Your task to perform on an android device: create a new album in the google photos Image 0: 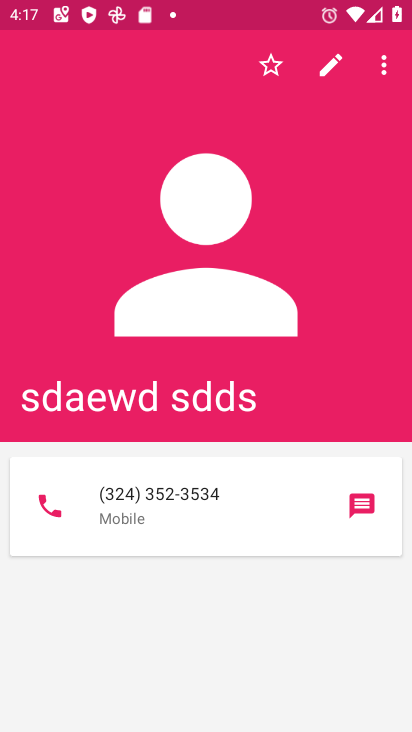
Step 0: press home button
Your task to perform on an android device: create a new album in the google photos Image 1: 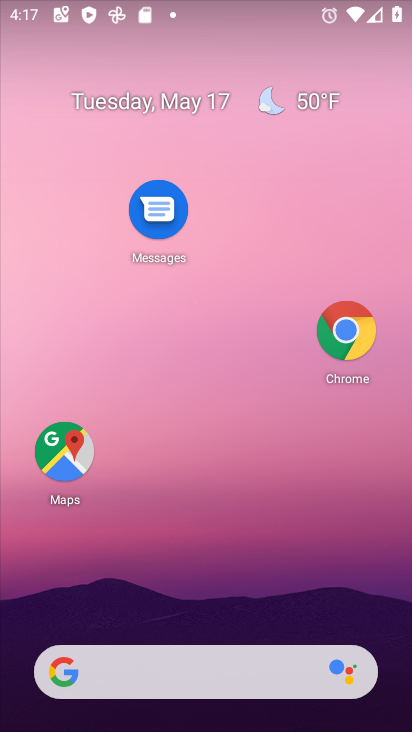
Step 1: drag from (272, 541) to (293, 117)
Your task to perform on an android device: create a new album in the google photos Image 2: 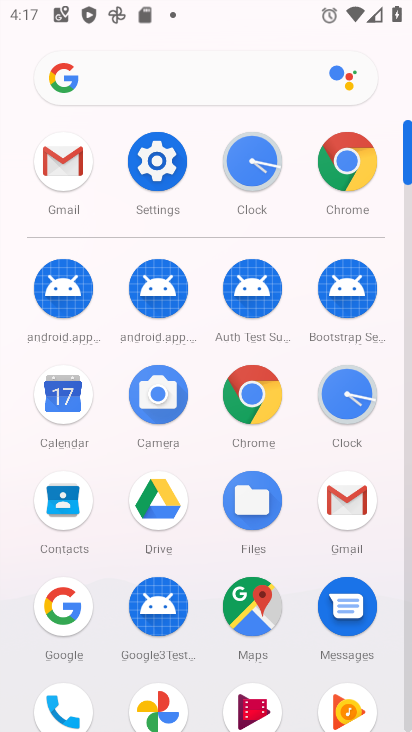
Step 2: click (146, 715)
Your task to perform on an android device: create a new album in the google photos Image 3: 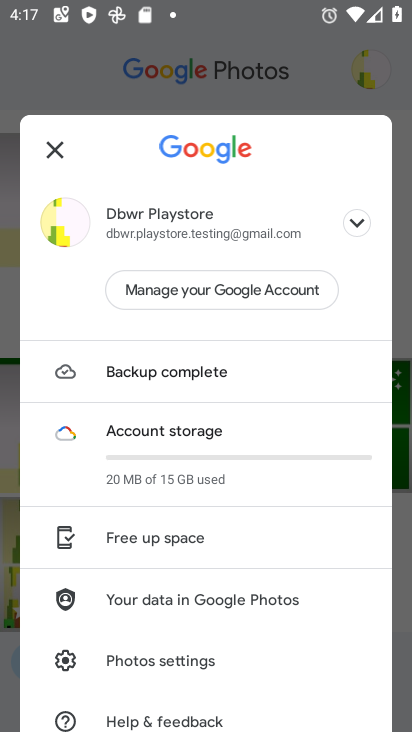
Step 3: drag from (146, 715) to (144, 585)
Your task to perform on an android device: create a new album in the google photos Image 4: 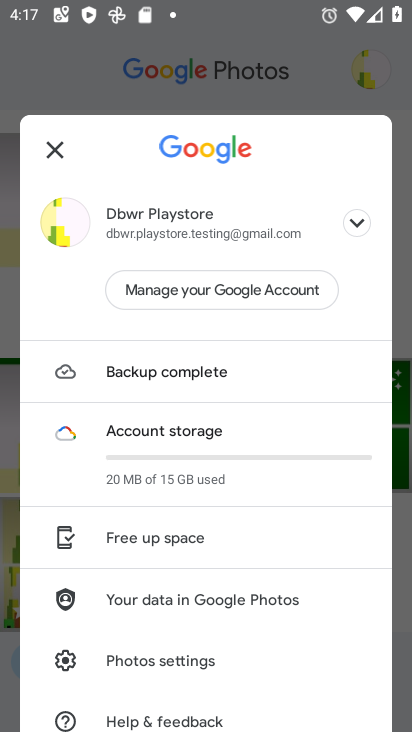
Step 4: click (45, 138)
Your task to perform on an android device: create a new album in the google photos Image 5: 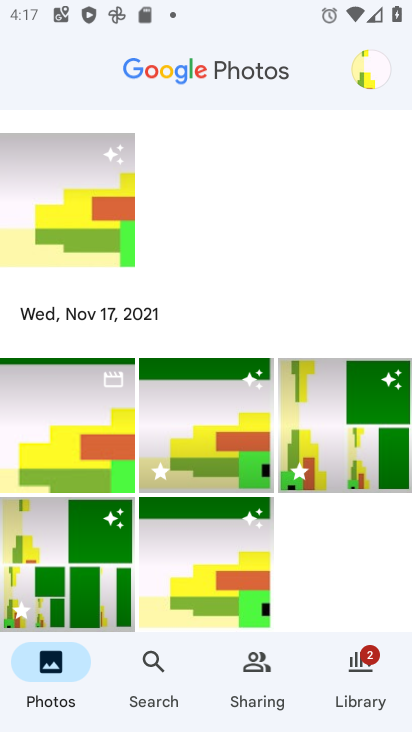
Step 5: click (319, 694)
Your task to perform on an android device: create a new album in the google photos Image 6: 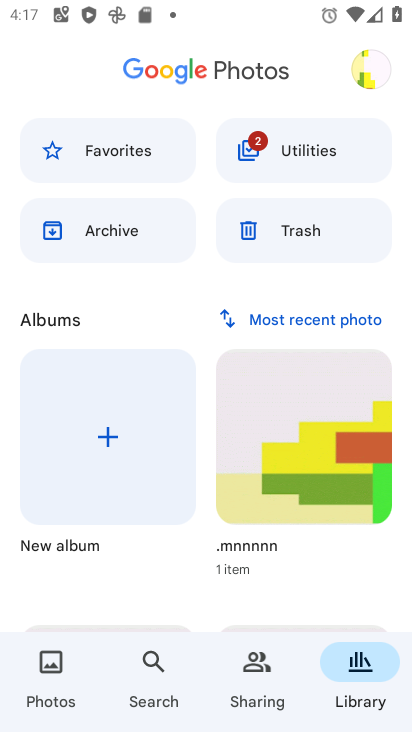
Step 6: click (107, 488)
Your task to perform on an android device: create a new album in the google photos Image 7: 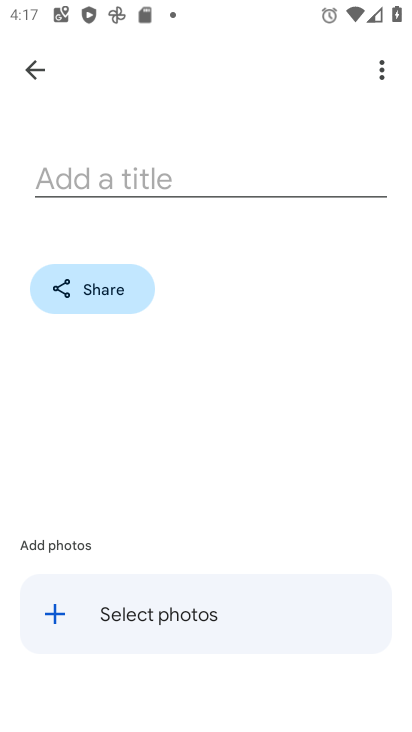
Step 7: click (95, 164)
Your task to perform on an android device: create a new album in the google photos Image 8: 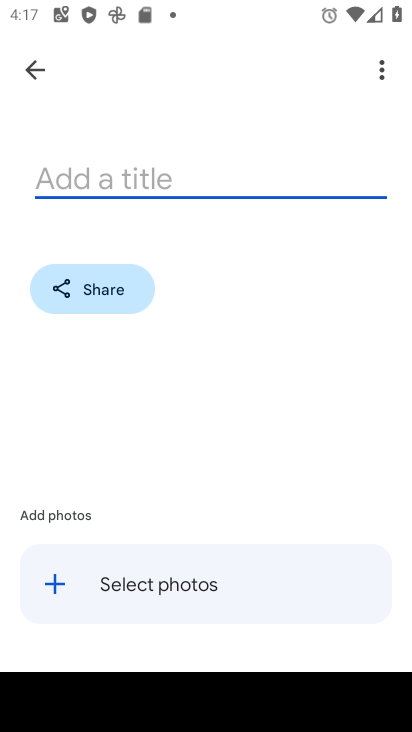
Step 8: type "dcdsv"
Your task to perform on an android device: create a new album in the google photos Image 9: 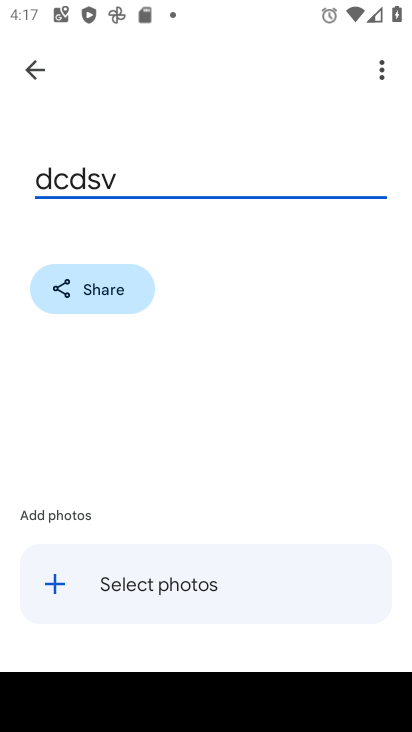
Step 9: click (145, 565)
Your task to perform on an android device: create a new album in the google photos Image 10: 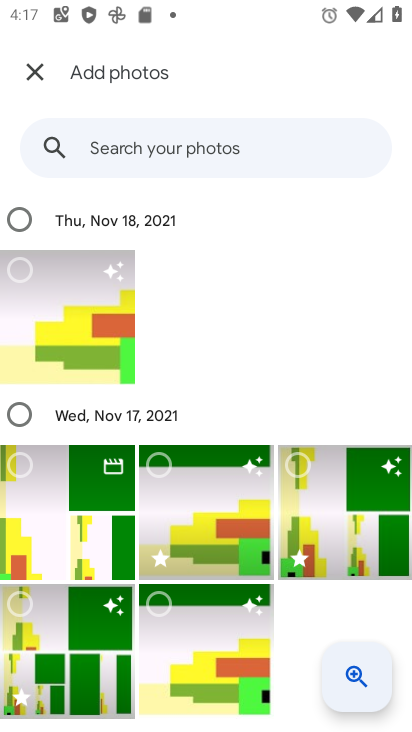
Step 10: click (41, 210)
Your task to perform on an android device: create a new album in the google photos Image 11: 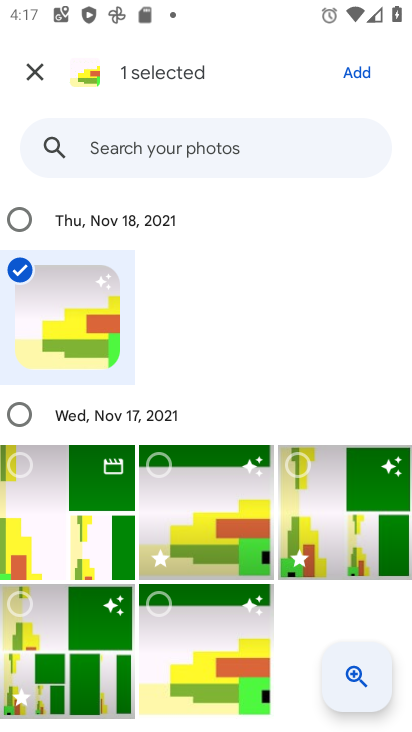
Step 11: click (18, 405)
Your task to perform on an android device: create a new album in the google photos Image 12: 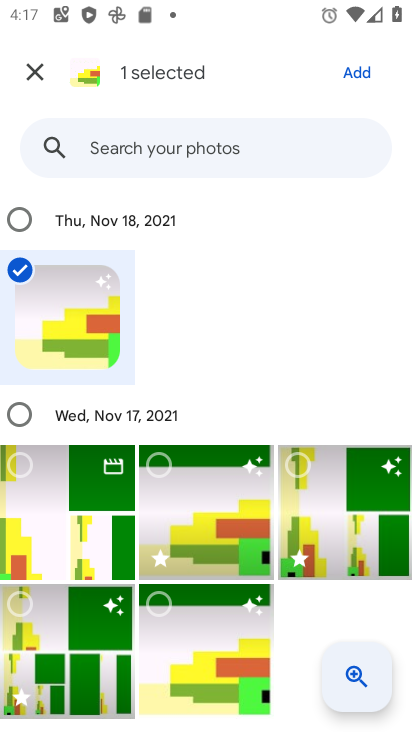
Step 12: click (18, 405)
Your task to perform on an android device: create a new album in the google photos Image 13: 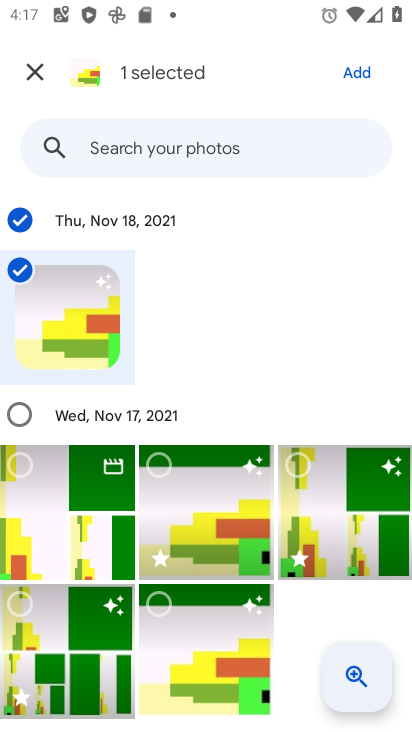
Step 13: click (131, 430)
Your task to perform on an android device: create a new album in the google photos Image 14: 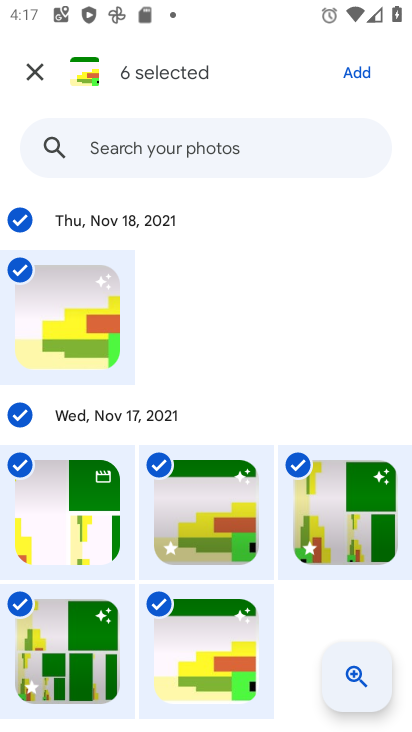
Step 14: task complete